Your task to perform on an android device: move a message to another label in the gmail app Image 0: 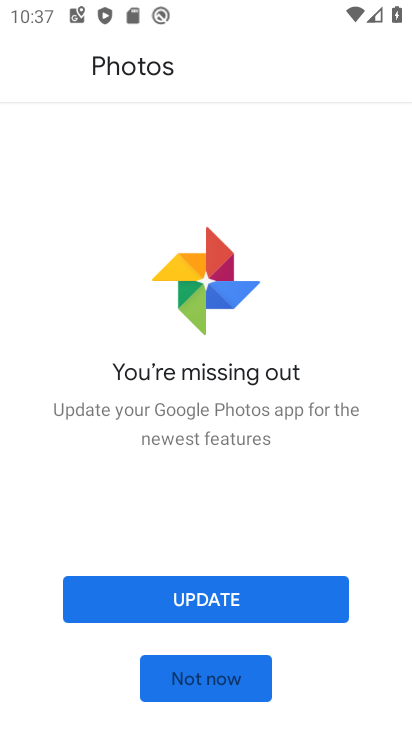
Step 0: click (241, 683)
Your task to perform on an android device: move a message to another label in the gmail app Image 1: 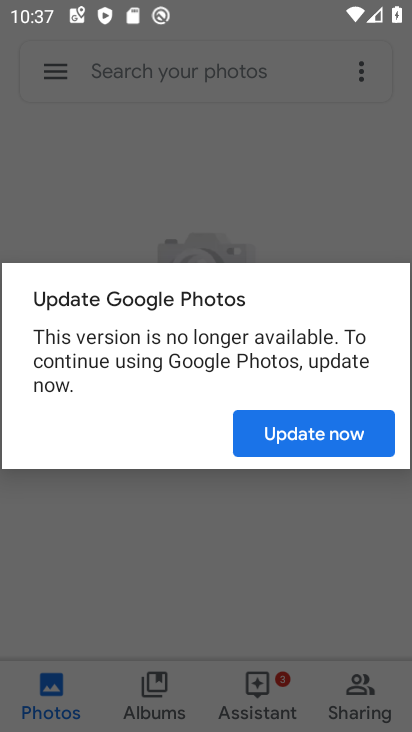
Step 1: click (361, 435)
Your task to perform on an android device: move a message to another label in the gmail app Image 2: 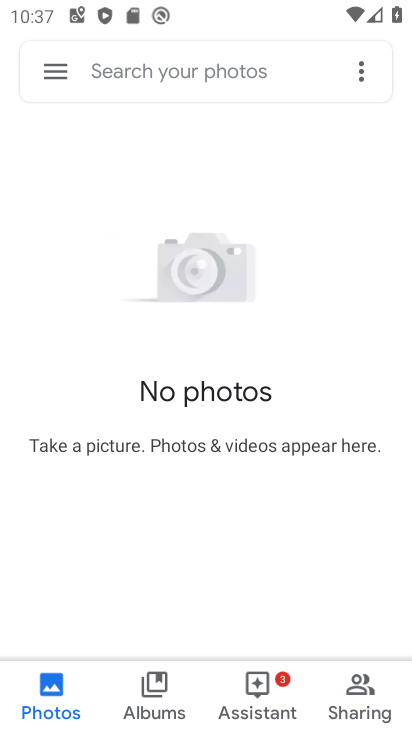
Step 2: press home button
Your task to perform on an android device: move a message to another label in the gmail app Image 3: 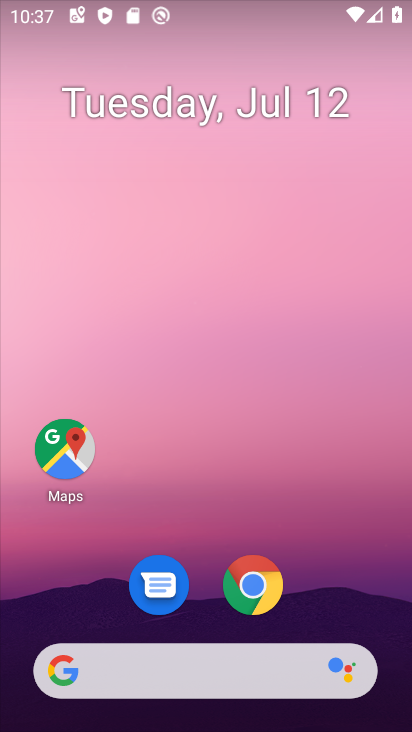
Step 3: drag from (311, 558) to (314, 30)
Your task to perform on an android device: move a message to another label in the gmail app Image 4: 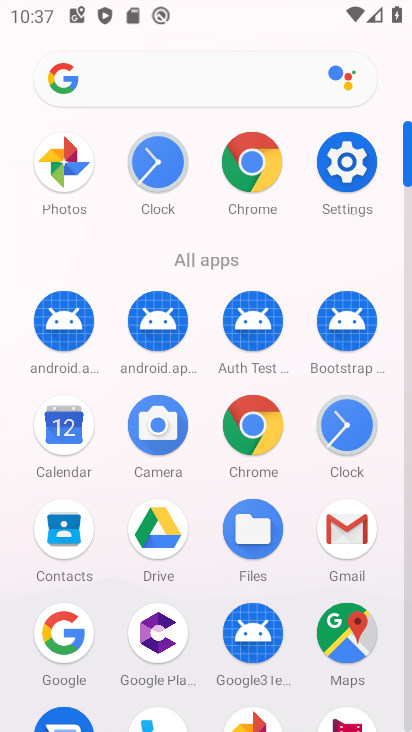
Step 4: click (346, 522)
Your task to perform on an android device: move a message to another label in the gmail app Image 5: 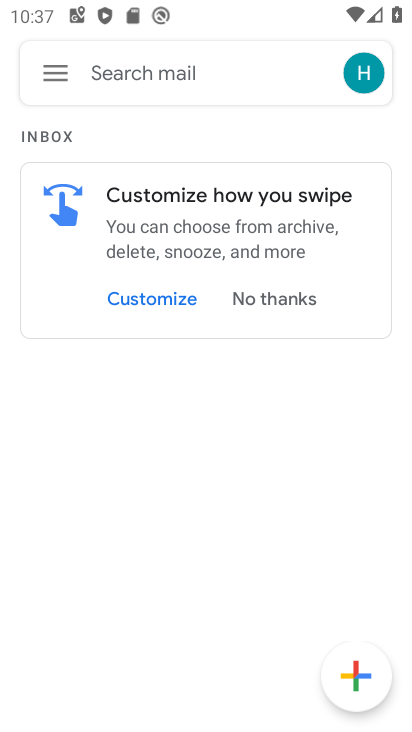
Step 5: click (252, 291)
Your task to perform on an android device: move a message to another label in the gmail app Image 6: 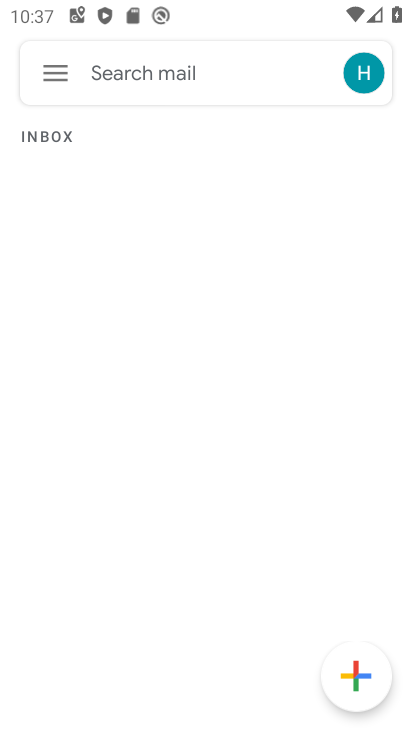
Step 6: click (61, 78)
Your task to perform on an android device: move a message to another label in the gmail app Image 7: 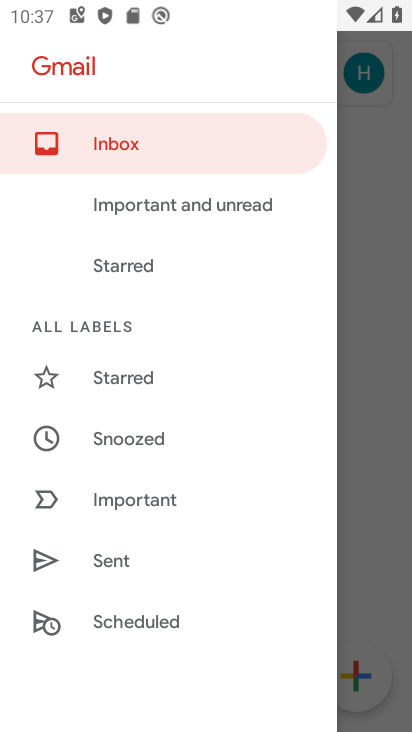
Step 7: drag from (219, 488) to (205, 189)
Your task to perform on an android device: move a message to another label in the gmail app Image 8: 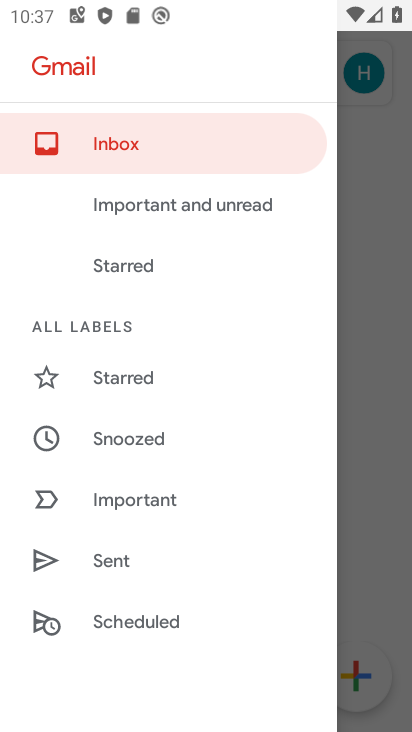
Step 8: drag from (142, 588) to (201, 146)
Your task to perform on an android device: move a message to another label in the gmail app Image 9: 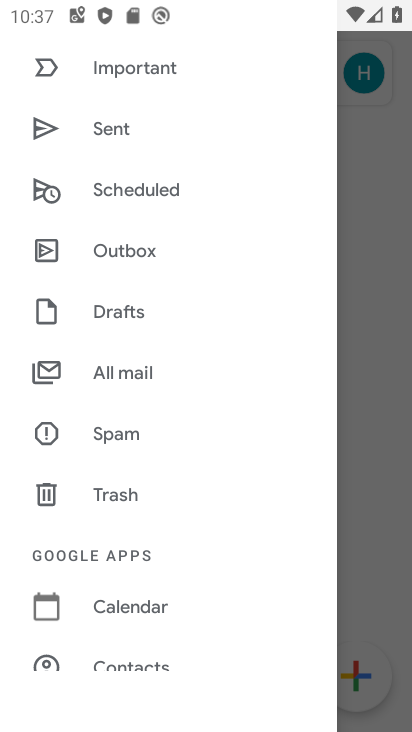
Step 9: click (142, 369)
Your task to perform on an android device: move a message to another label in the gmail app Image 10: 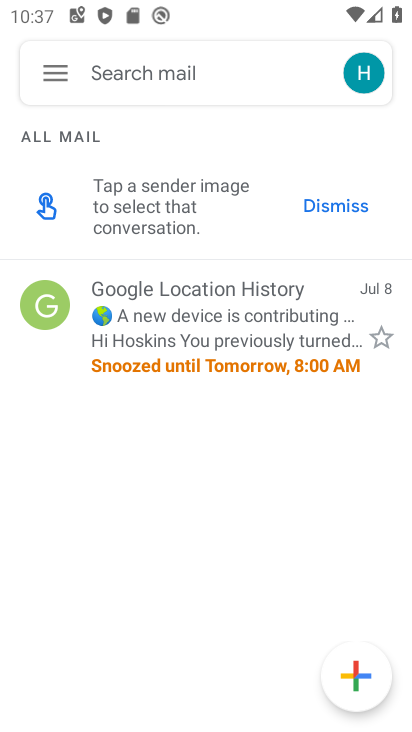
Step 10: click (244, 321)
Your task to perform on an android device: move a message to another label in the gmail app Image 11: 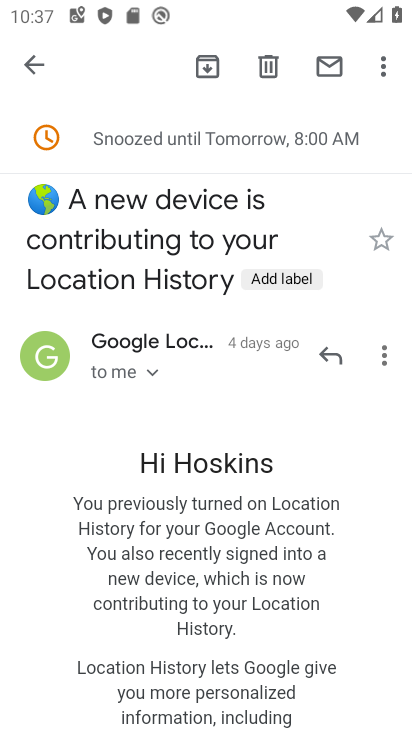
Step 11: click (381, 56)
Your task to perform on an android device: move a message to another label in the gmail app Image 12: 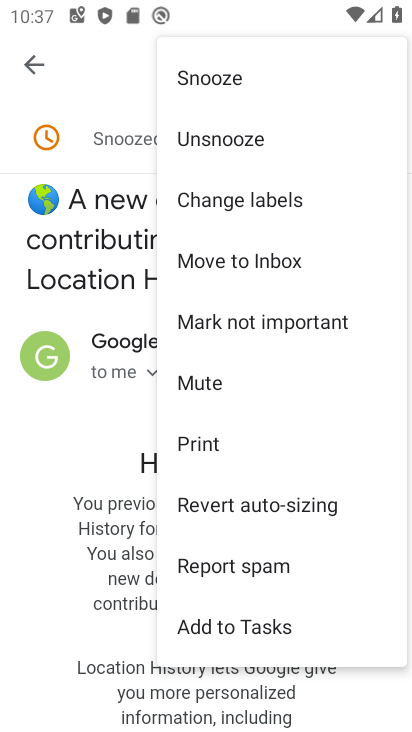
Step 12: click (274, 194)
Your task to perform on an android device: move a message to another label in the gmail app Image 13: 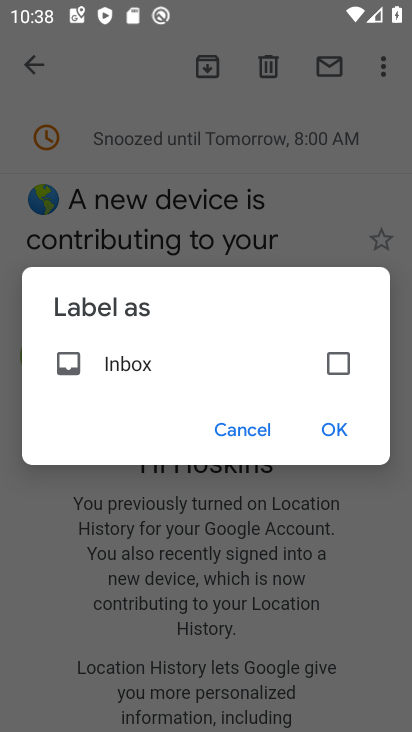
Step 13: click (337, 363)
Your task to perform on an android device: move a message to another label in the gmail app Image 14: 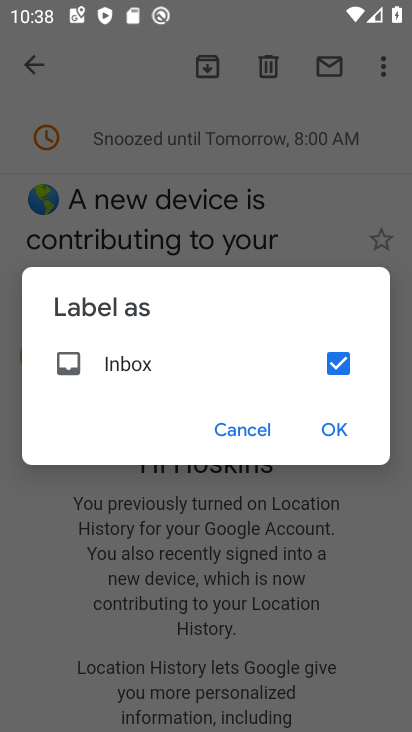
Step 14: click (336, 426)
Your task to perform on an android device: move a message to another label in the gmail app Image 15: 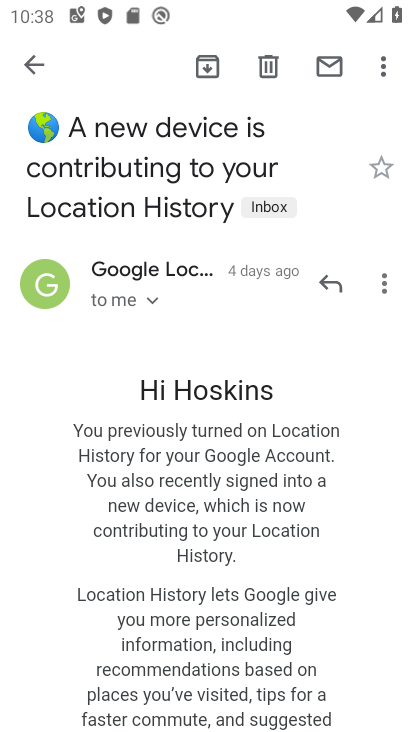
Step 15: task complete